Your task to perform on an android device: turn off location Image 0: 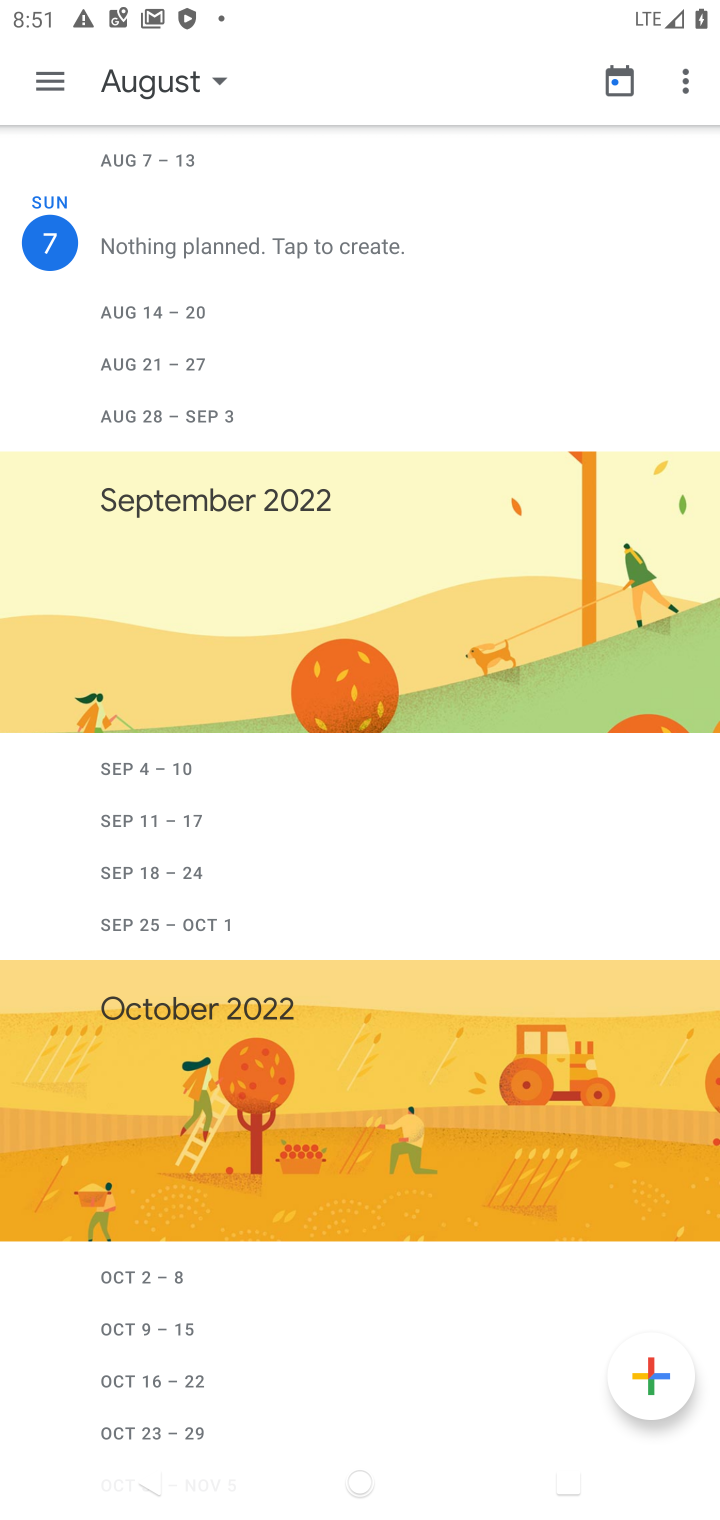
Step 0: press home button
Your task to perform on an android device: turn off location Image 1: 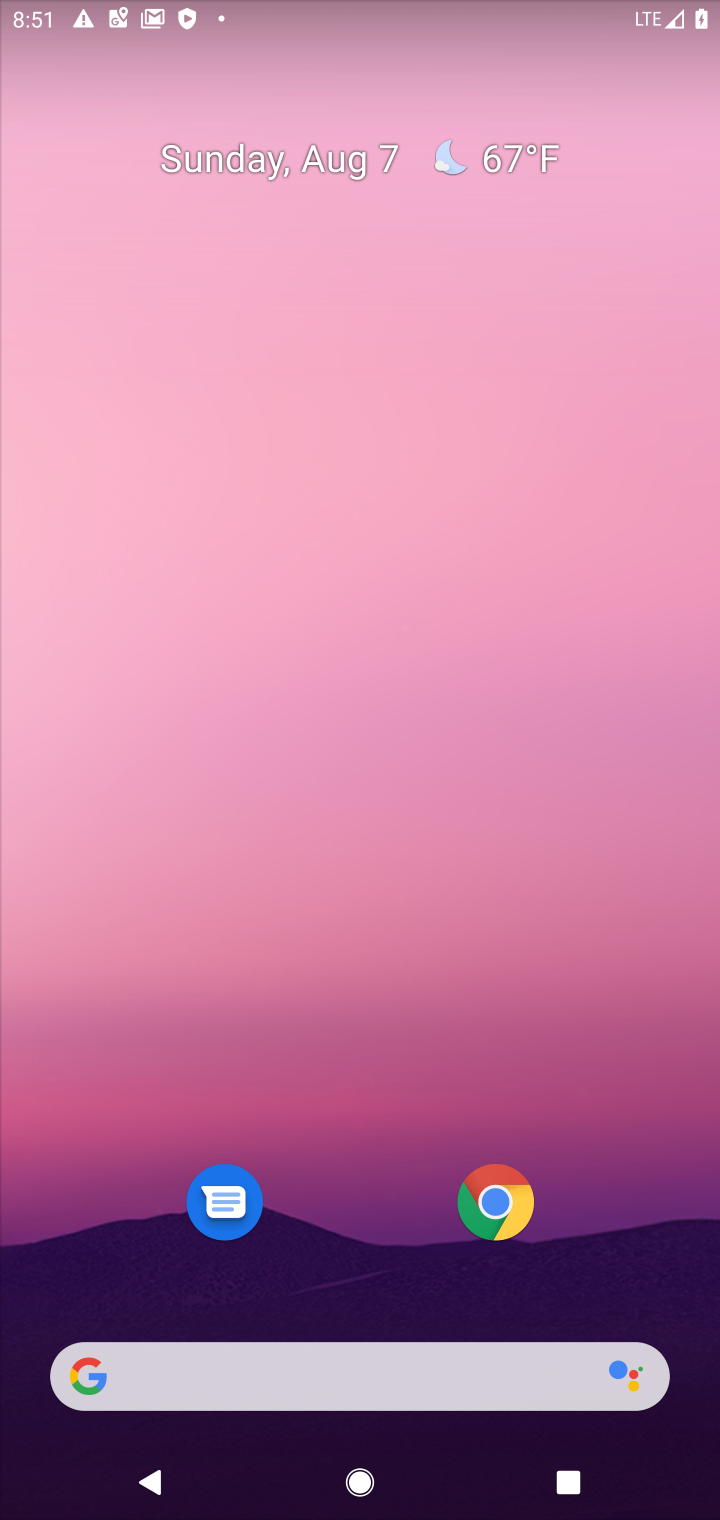
Step 1: drag from (375, 1199) to (285, 99)
Your task to perform on an android device: turn off location Image 2: 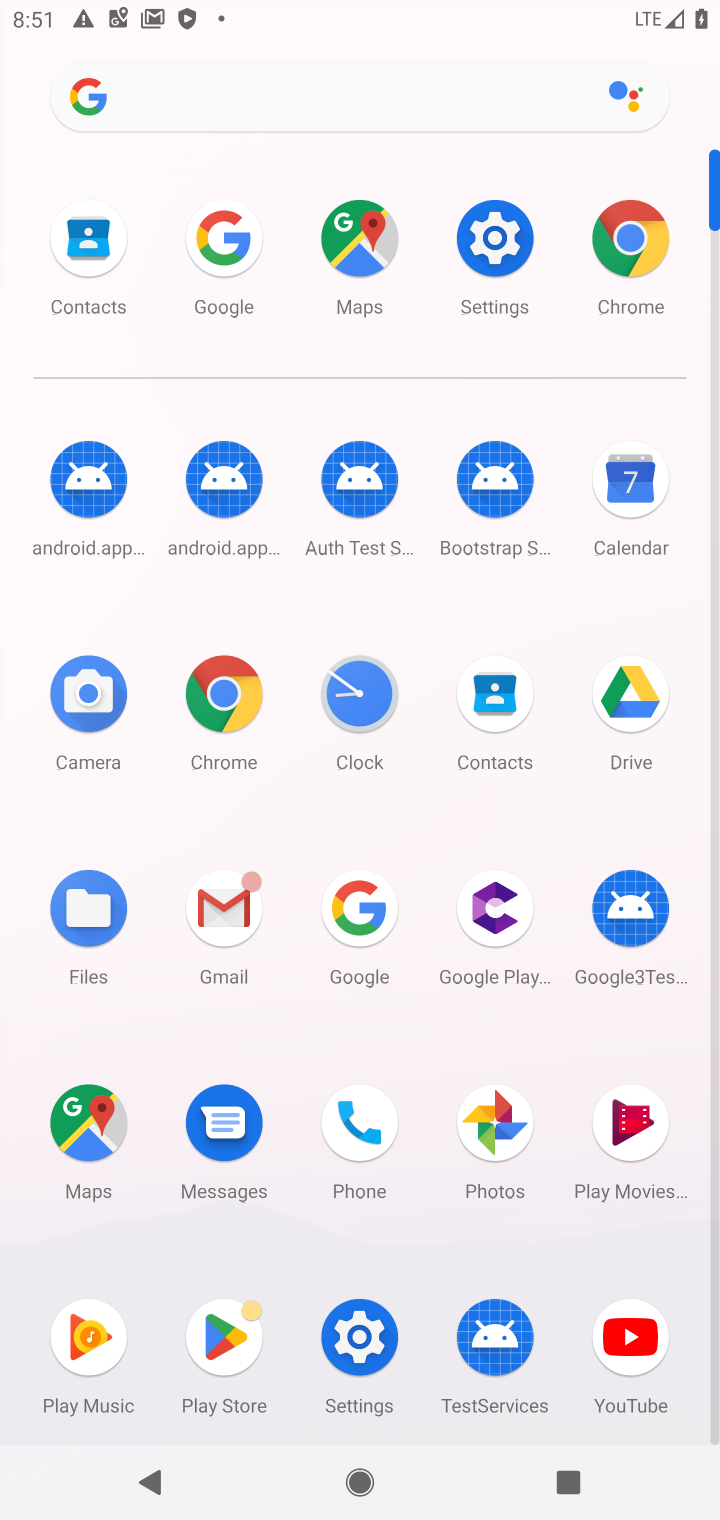
Step 2: click (503, 236)
Your task to perform on an android device: turn off location Image 3: 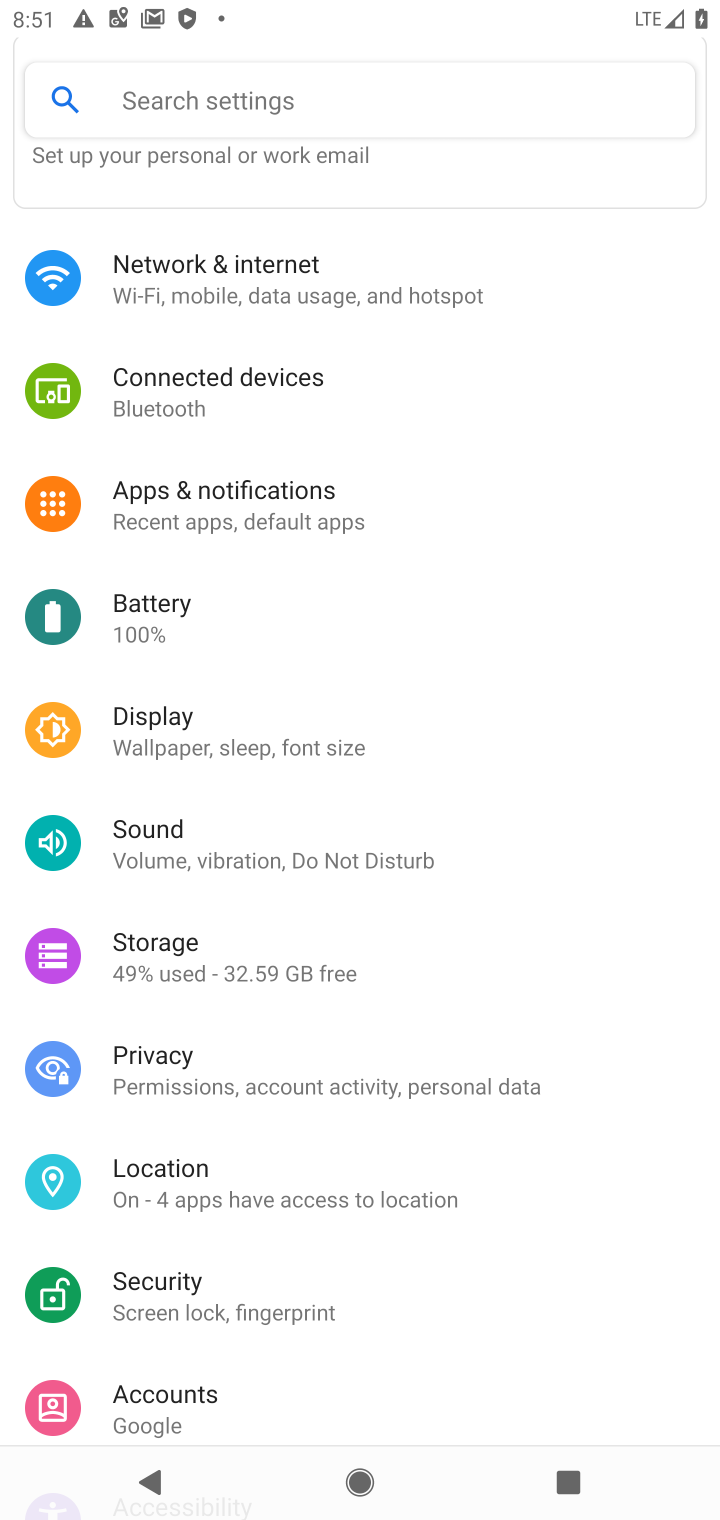
Step 3: click (305, 1182)
Your task to perform on an android device: turn off location Image 4: 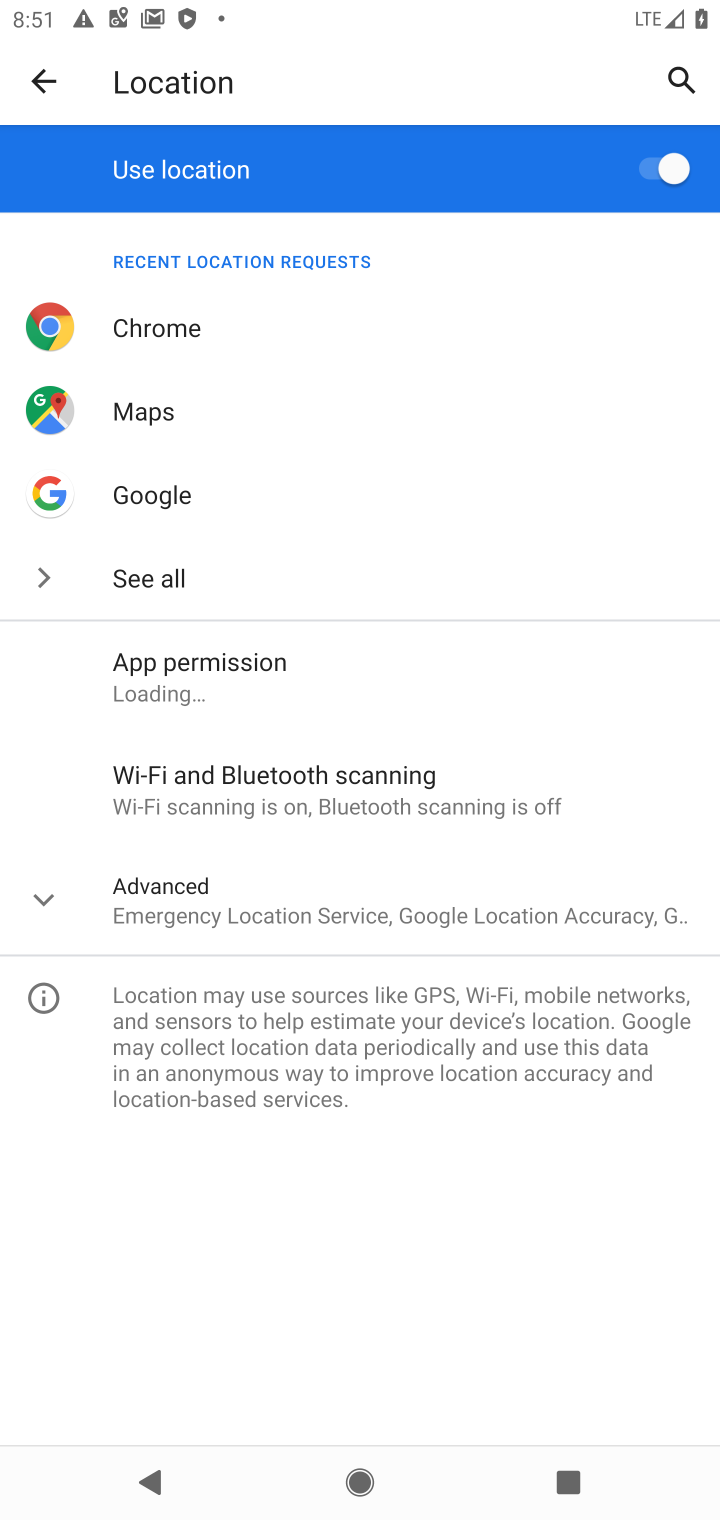
Step 4: click (651, 170)
Your task to perform on an android device: turn off location Image 5: 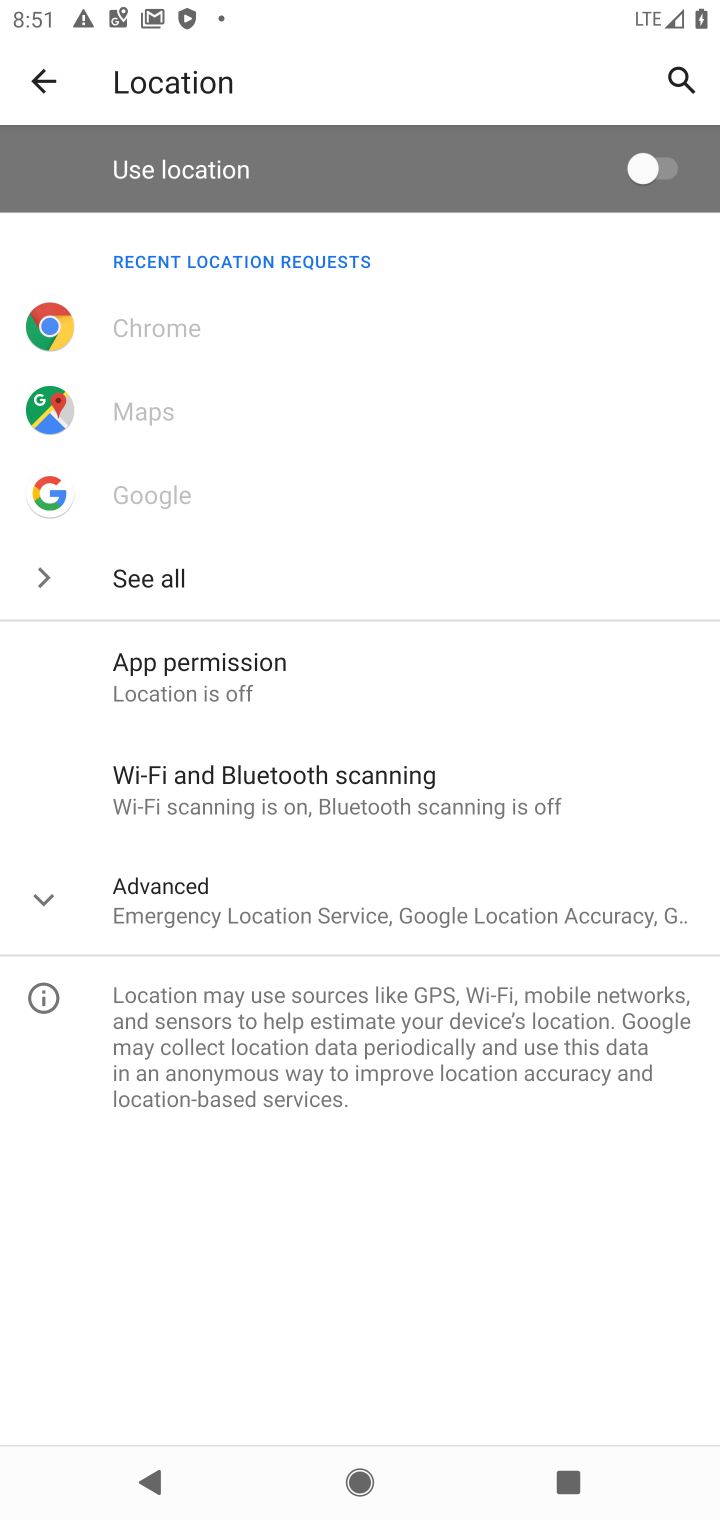
Step 5: task complete